Your task to perform on an android device: turn on translation in the chrome app Image 0: 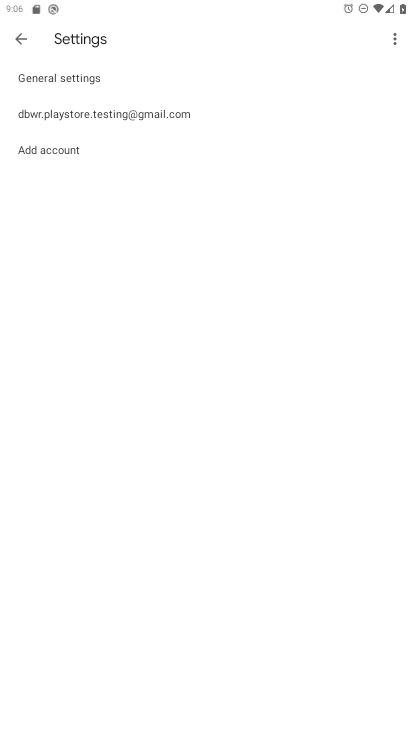
Step 0: press home button
Your task to perform on an android device: turn on translation in the chrome app Image 1: 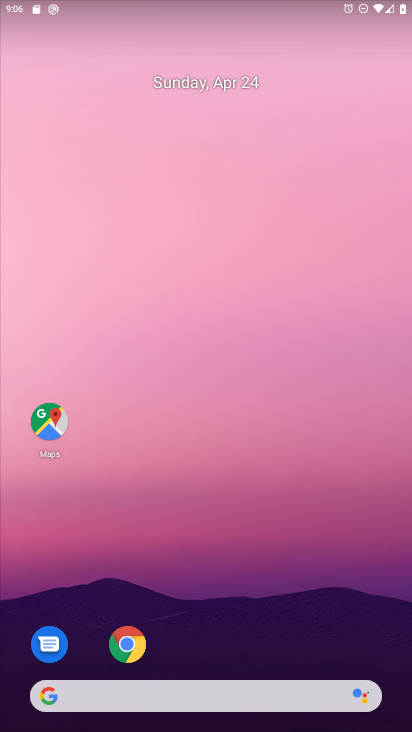
Step 1: drag from (211, 660) to (140, 23)
Your task to perform on an android device: turn on translation in the chrome app Image 2: 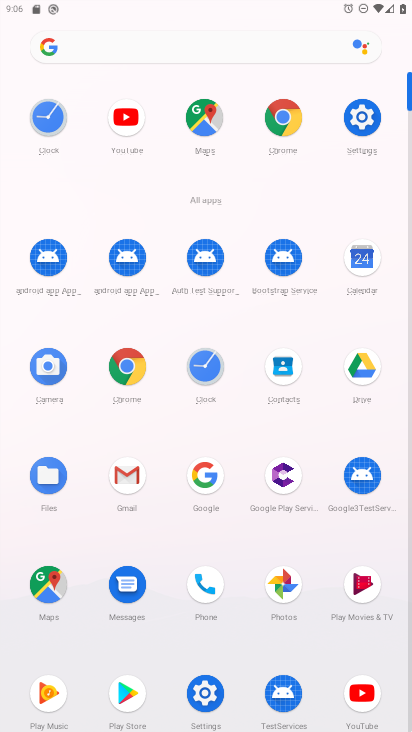
Step 2: click (128, 394)
Your task to perform on an android device: turn on translation in the chrome app Image 3: 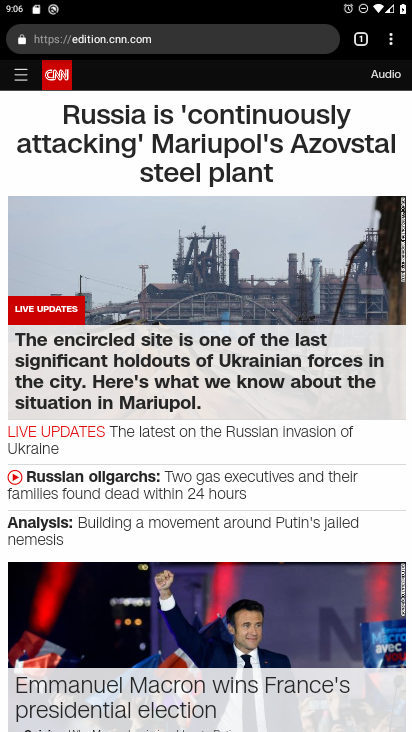
Step 3: drag from (387, 39) to (254, 430)
Your task to perform on an android device: turn on translation in the chrome app Image 4: 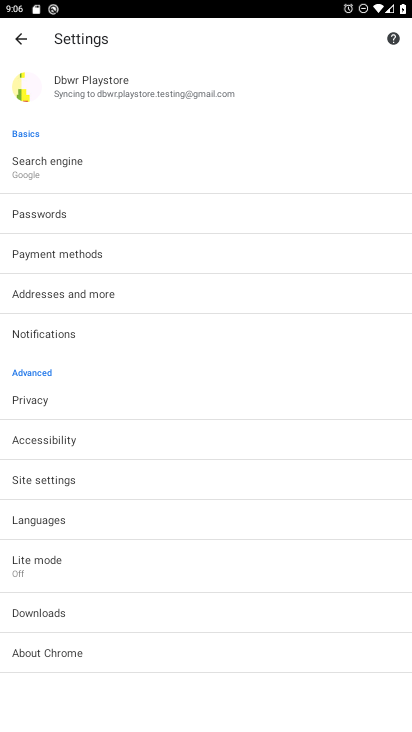
Step 4: click (32, 524)
Your task to perform on an android device: turn on translation in the chrome app Image 5: 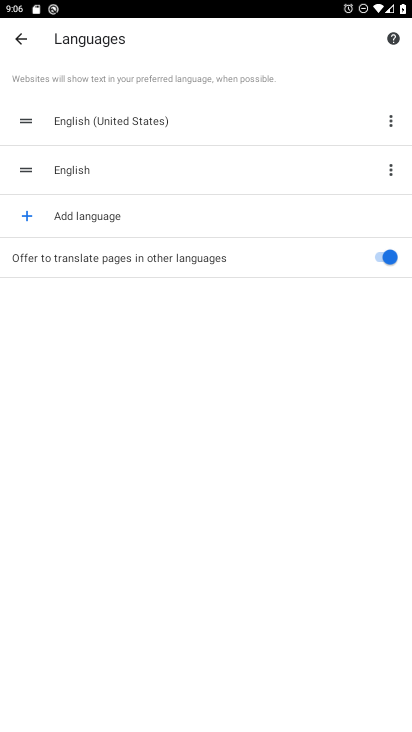
Step 5: task complete